Your task to perform on an android device: What's on my calendar tomorrow? Image 0: 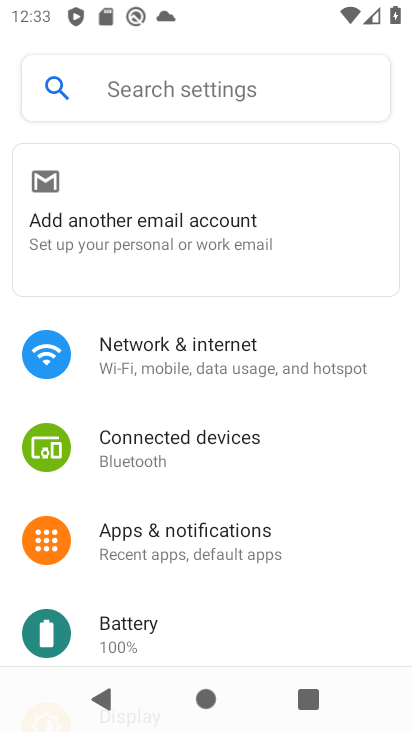
Step 0: press home button
Your task to perform on an android device: What's on my calendar tomorrow? Image 1: 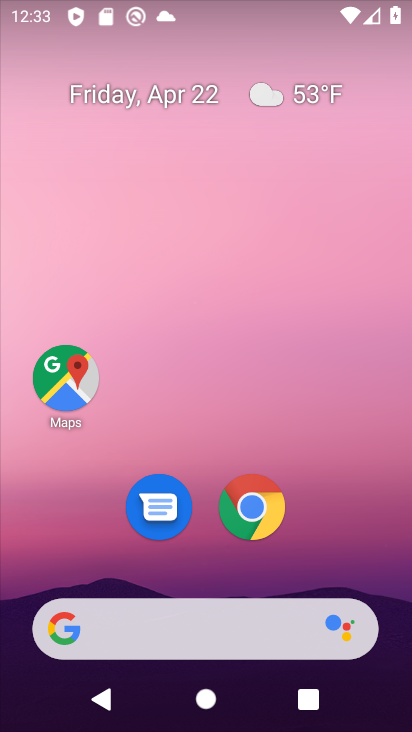
Step 1: drag from (343, 458) to (308, 158)
Your task to perform on an android device: What's on my calendar tomorrow? Image 2: 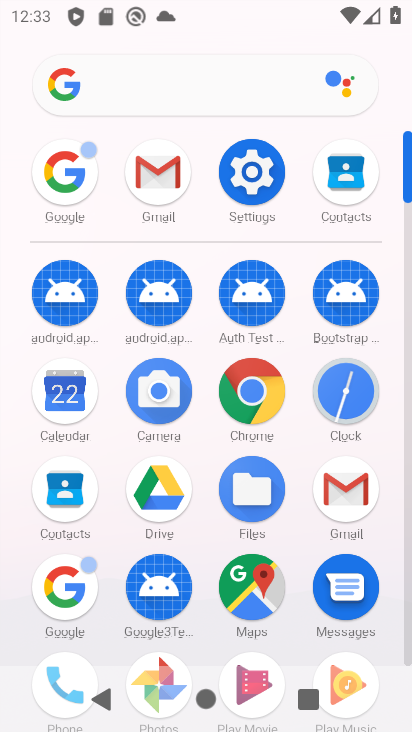
Step 2: click (63, 394)
Your task to perform on an android device: What's on my calendar tomorrow? Image 3: 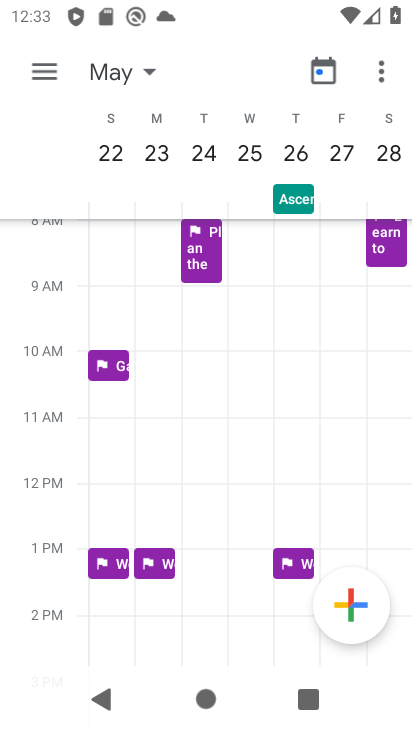
Step 3: click (105, 71)
Your task to perform on an android device: What's on my calendar tomorrow? Image 4: 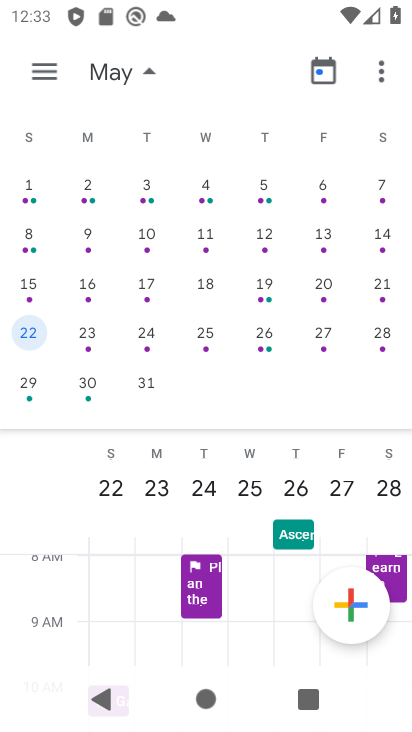
Step 4: drag from (127, 270) to (407, 297)
Your task to perform on an android device: What's on my calendar tomorrow? Image 5: 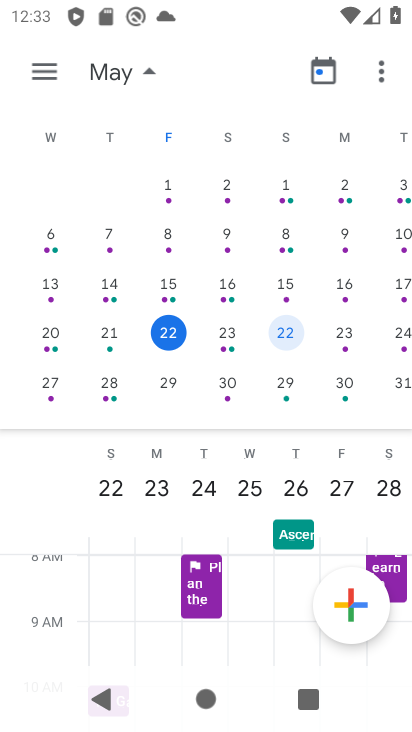
Step 5: click (227, 335)
Your task to perform on an android device: What's on my calendar tomorrow? Image 6: 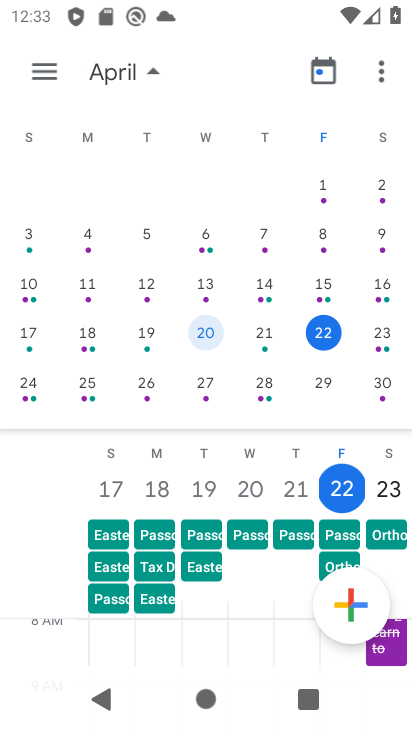
Step 6: click (382, 331)
Your task to perform on an android device: What's on my calendar tomorrow? Image 7: 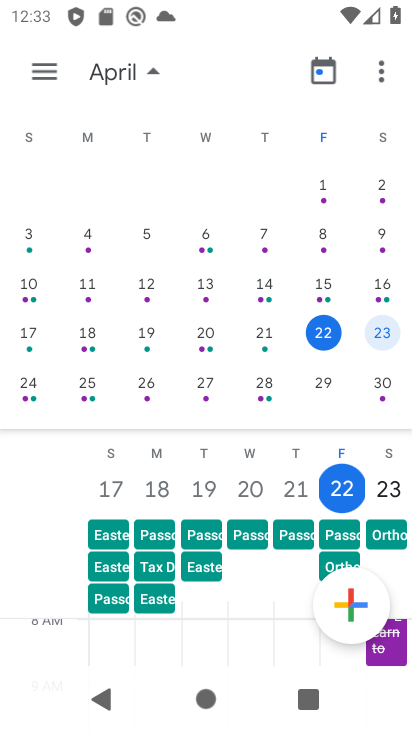
Step 7: click (382, 331)
Your task to perform on an android device: What's on my calendar tomorrow? Image 8: 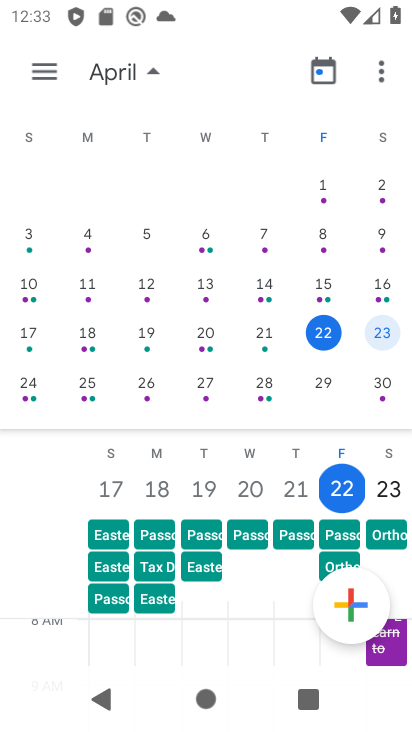
Step 8: click (44, 76)
Your task to perform on an android device: What's on my calendar tomorrow? Image 9: 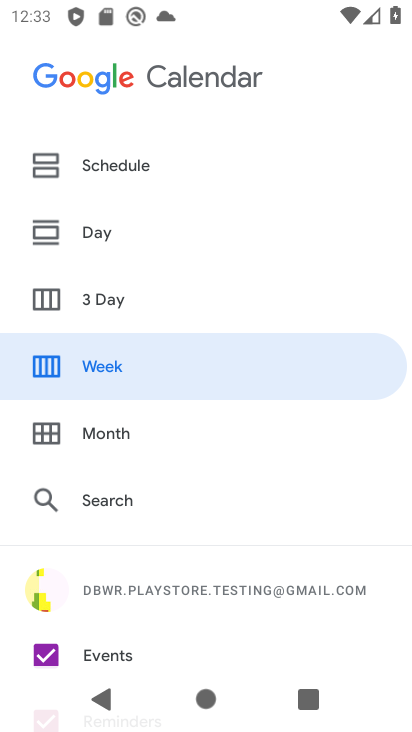
Step 9: click (107, 167)
Your task to perform on an android device: What's on my calendar tomorrow? Image 10: 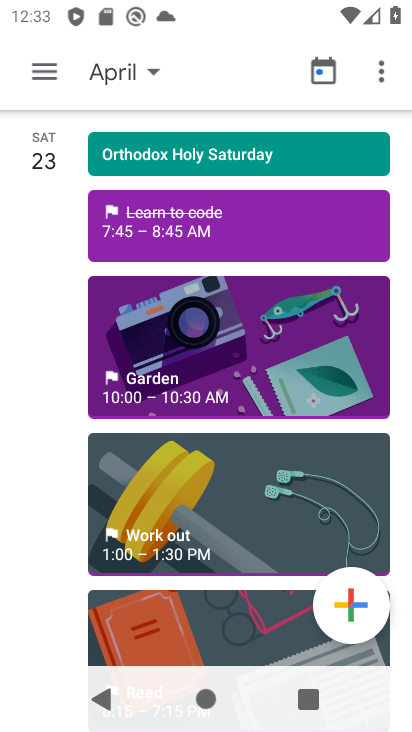
Step 10: task complete